Your task to perform on an android device: Go to battery settings Image 0: 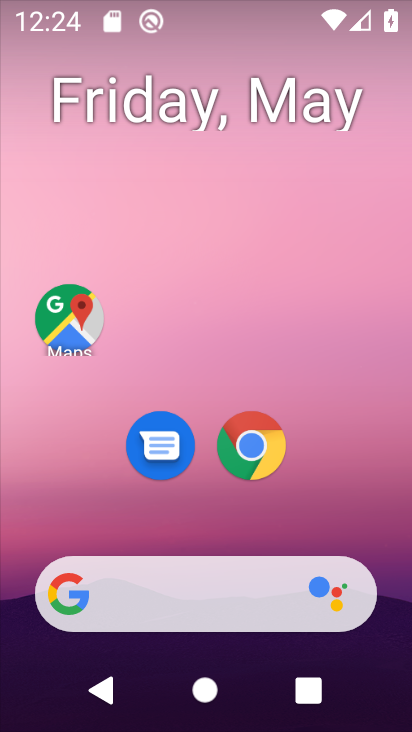
Step 0: drag from (189, 526) to (103, 1)
Your task to perform on an android device: Go to battery settings Image 1: 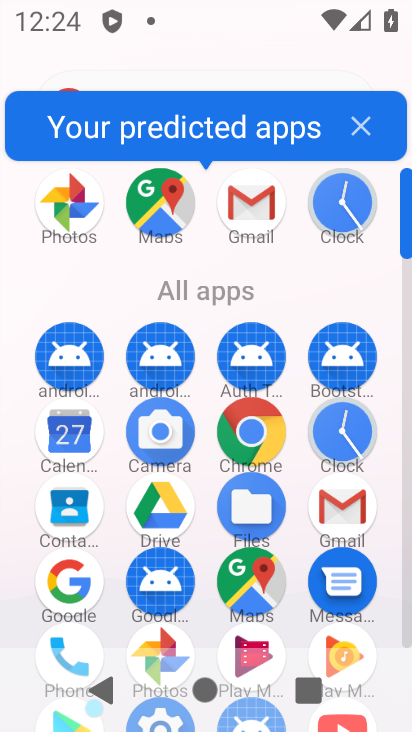
Step 1: drag from (265, 207) to (265, 145)
Your task to perform on an android device: Go to battery settings Image 2: 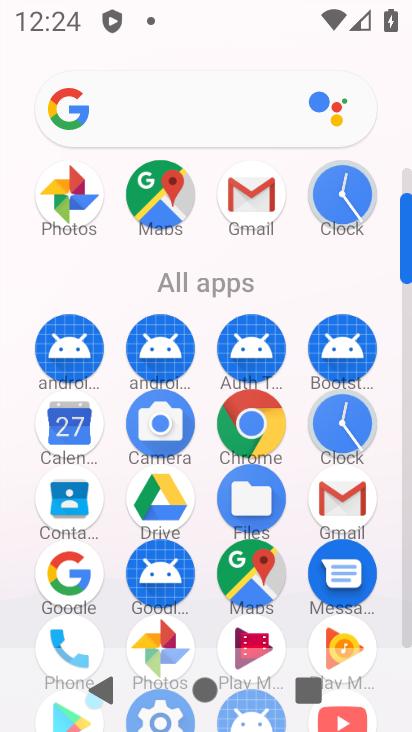
Step 2: drag from (200, 592) to (193, 90)
Your task to perform on an android device: Go to battery settings Image 3: 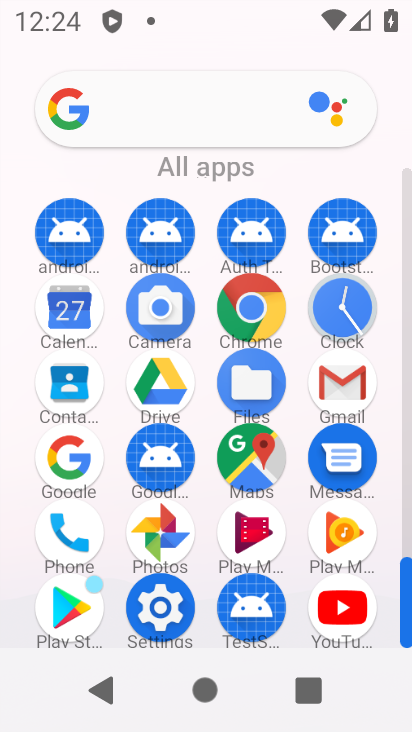
Step 3: click (173, 611)
Your task to perform on an android device: Go to battery settings Image 4: 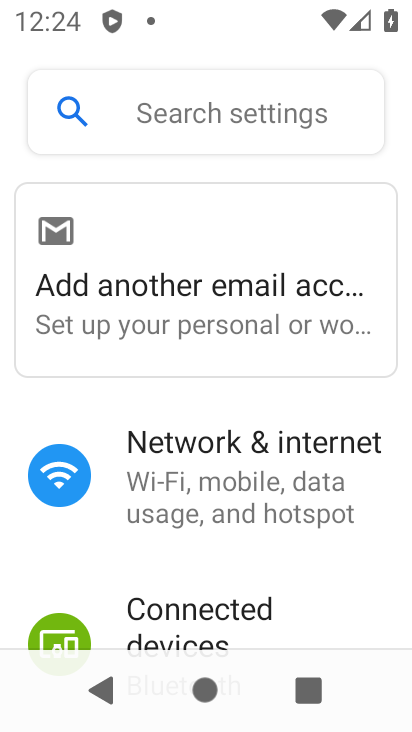
Step 4: drag from (199, 77) to (215, 45)
Your task to perform on an android device: Go to battery settings Image 5: 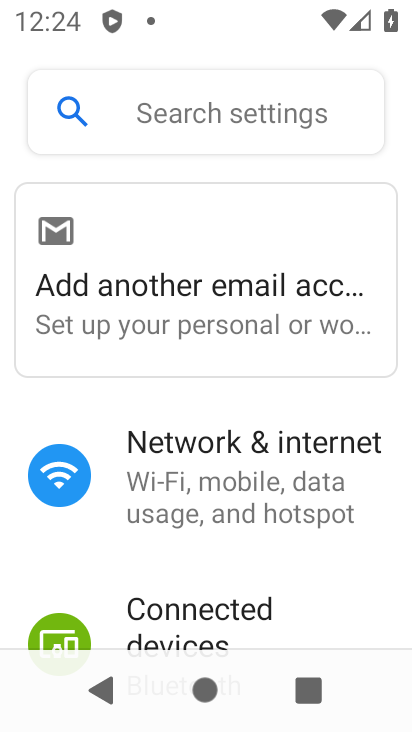
Step 5: drag from (202, 524) to (243, 19)
Your task to perform on an android device: Go to battery settings Image 6: 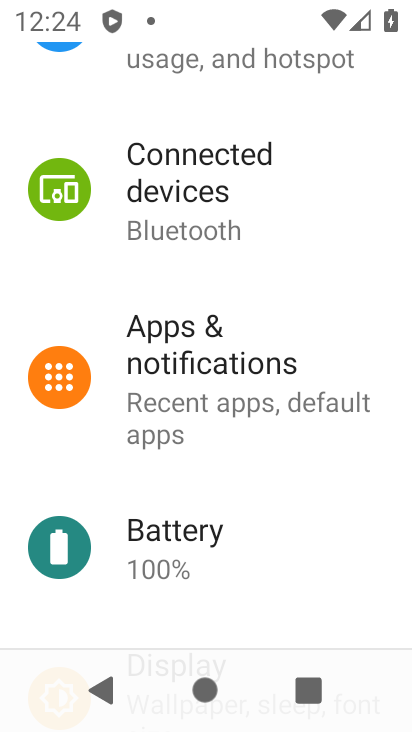
Step 6: click (185, 523)
Your task to perform on an android device: Go to battery settings Image 7: 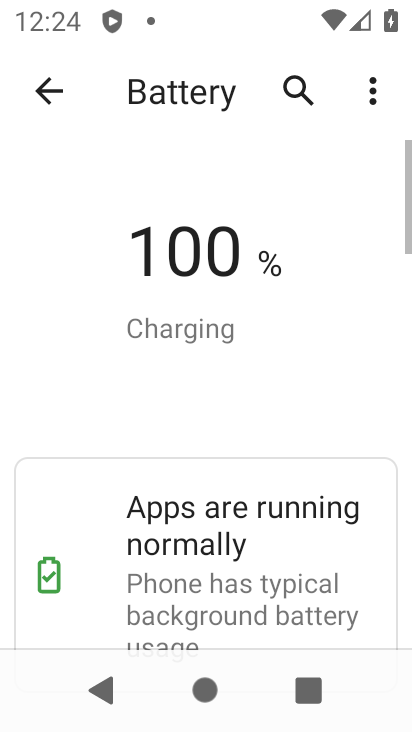
Step 7: task complete